Your task to perform on an android device: snooze an email in the gmail app Image 0: 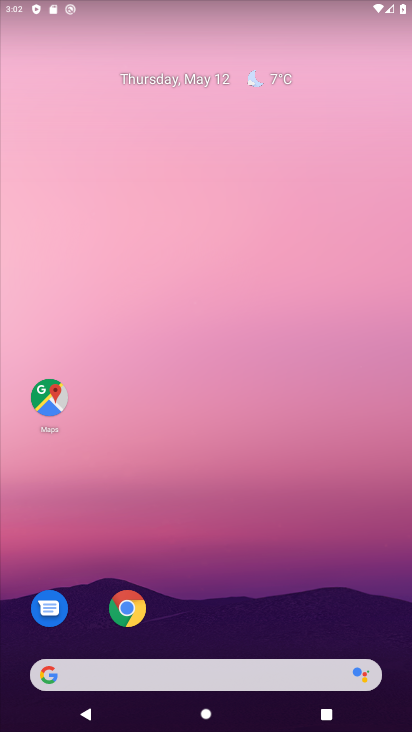
Step 0: drag from (207, 640) to (258, 74)
Your task to perform on an android device: snooze an email in the gmail app Image 1: 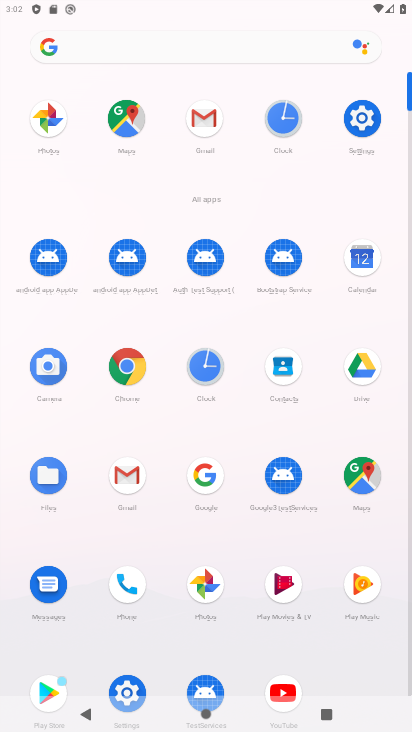
Step 1: click (206, 131)
Your task to perform on an android device: snooze an email in the gmail app Image 2: 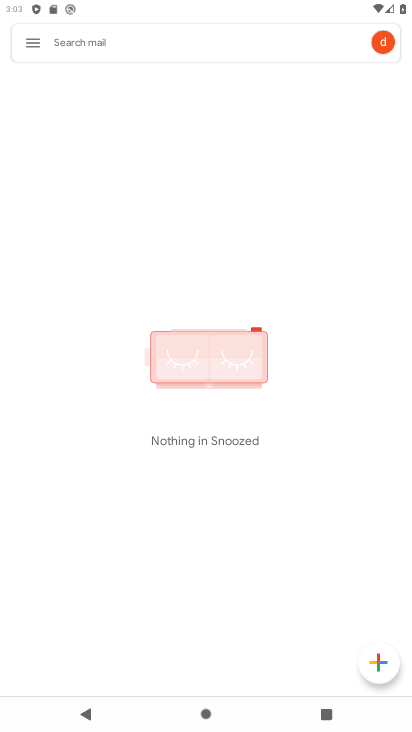
Step 2: click (25, 40)
Your task to perform on an android device: snooze an email in the gmail app Image 3: 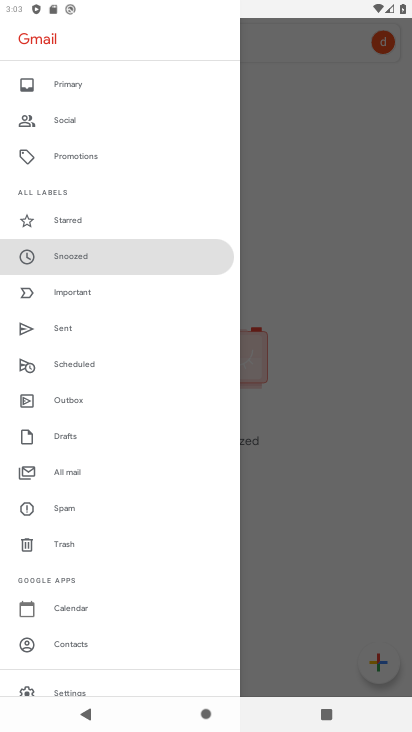
Step 3: click (78, 473)
Your task to perform on an android device: snooze an email in the gmail app Image 4: 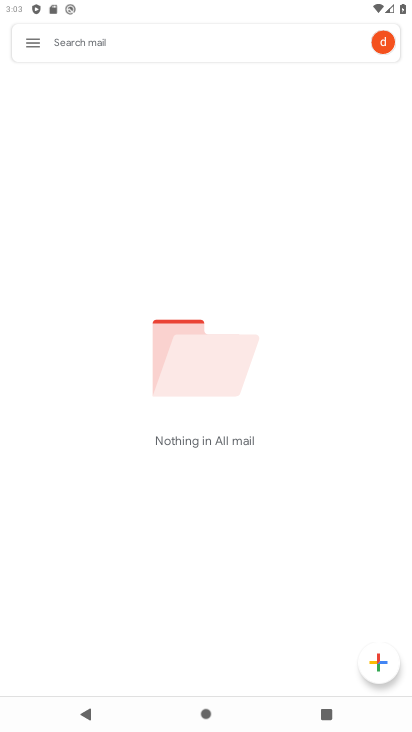
Step 4: click (201, 1)
Your task to perform on an android device: snooze an email in the gmail app Image 5: 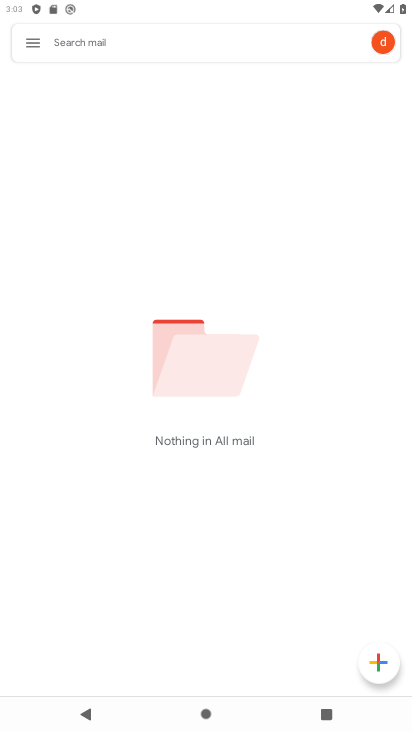
Step 5: task complete